Your task to perform on an android device: remove spam from my inbox in the gmail app Image 0: 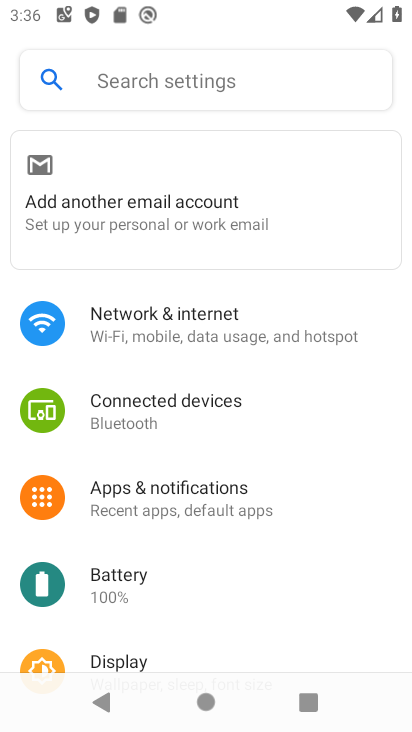
Step 0: press home button
Your task to perform on an android device: remove spam from my inbox in the gmail app Image 1: 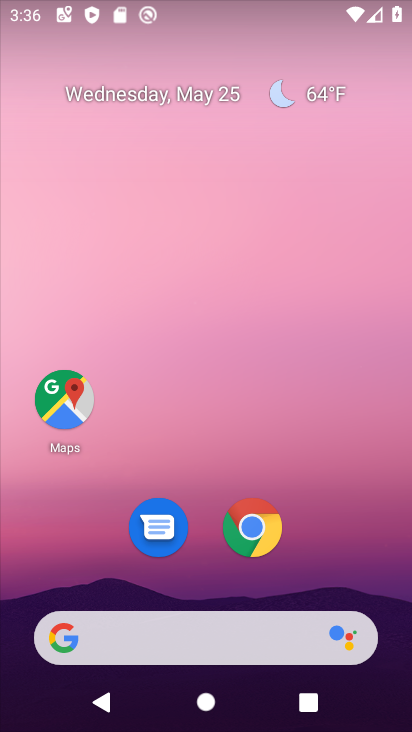
Step 1: drag from (157, 588) to (228, 47)
Your task to perform on an android device: remove spam from my inbox in the gmail app Image 2: 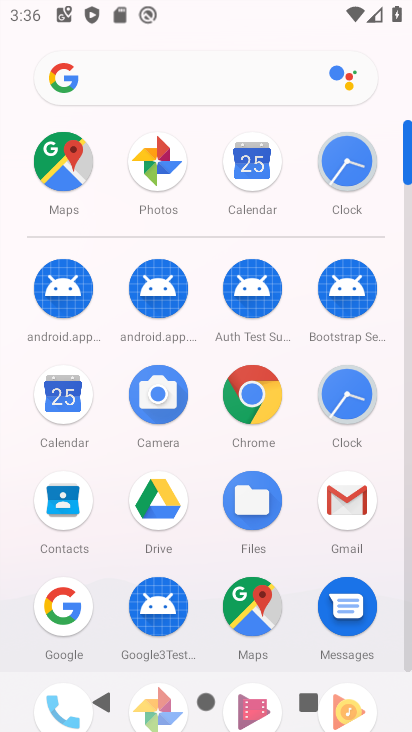
Step 2: click (352, 502)
Your task to perform on an android device: remove spam from my inbox in the gmail app Image 3: 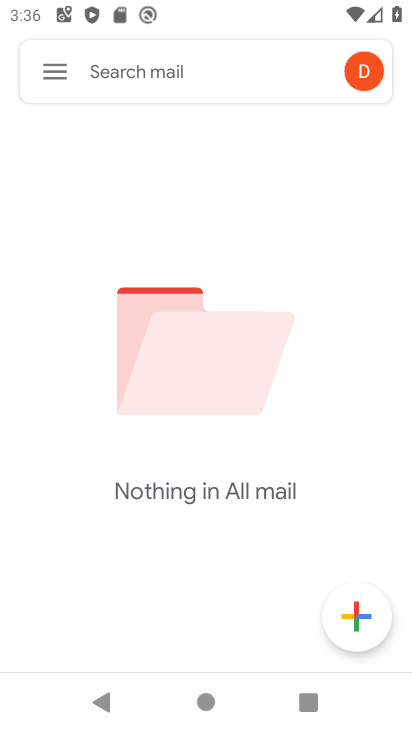
Step 3: click (48, 63)
Your task to perform on an android device: remove spam from my inbox in the gmail app Image 4: 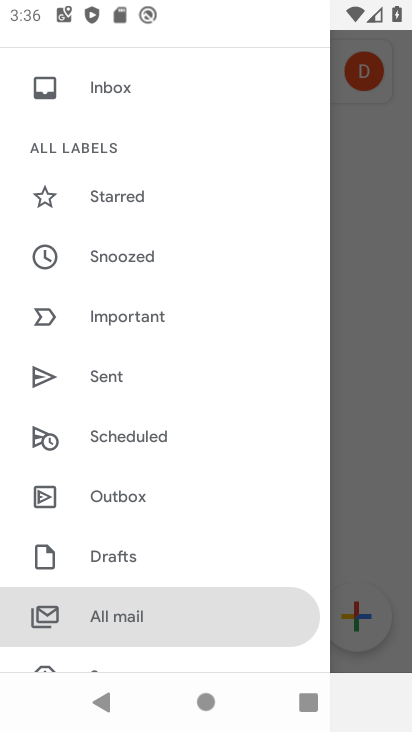
Step 4: drag from (117, 616) to (179, 237)
Your task to perform on an android device: remove spam from my inbox in the gmail app Image 5: 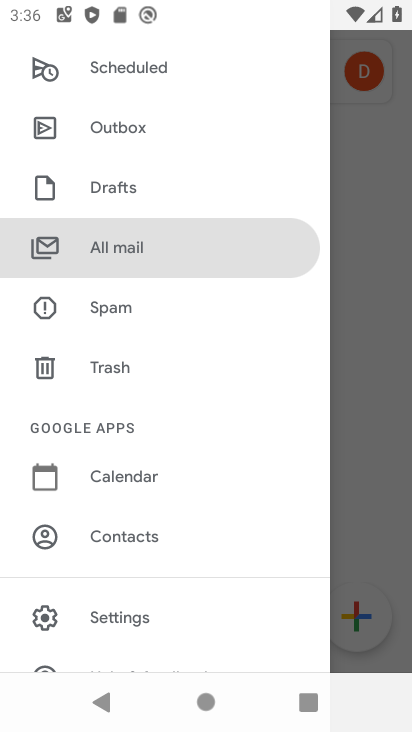
Step 5: click (122, 305)
Your task to perform on an android device: remove spam from my inbox in the gmail app Image 6: 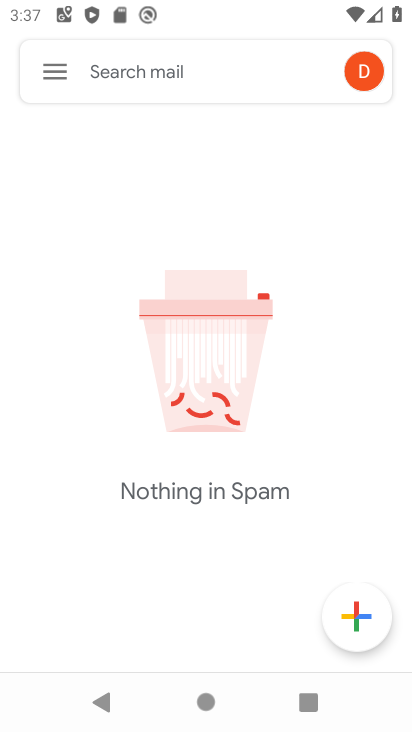
Step 6: task complete